Your task to perform on an android device: empty trash in the gmail app Image 0: 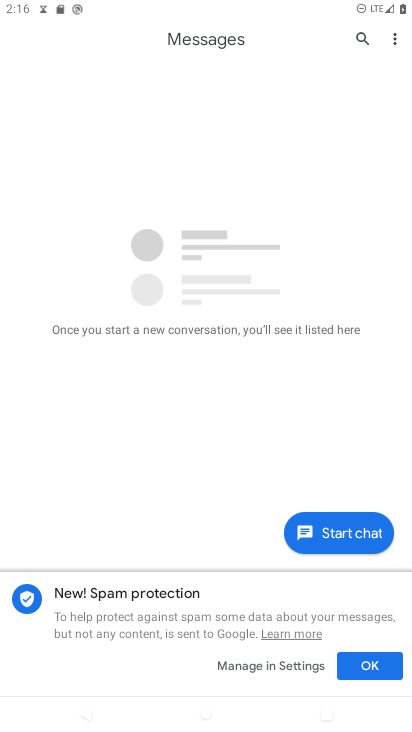
Step 0: press home button
Your task to perform on an android device: empty trash in the gmail app Image 1: 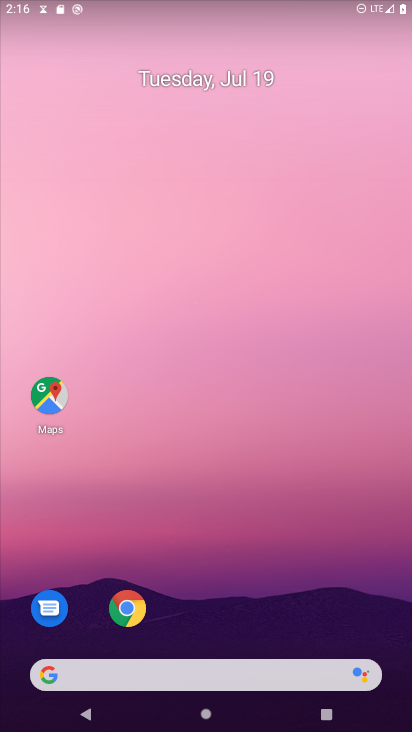
Step 1: drag from (179, 669) to (262, 67)
Your task to perform on an android device: empty trash in the gmail app Image 2: 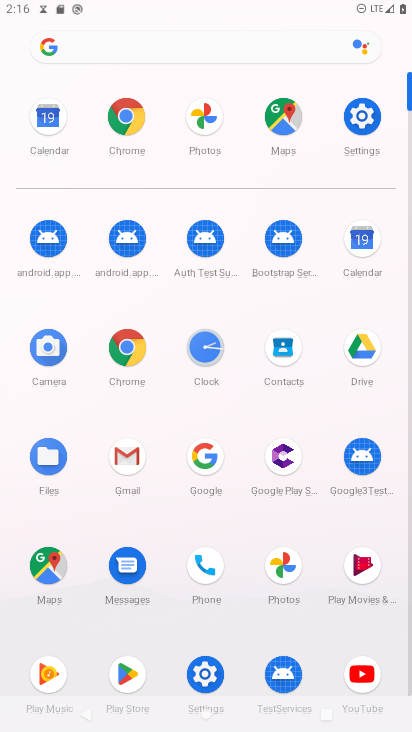
Step 2: click (117, 466)
Your task to perform on an android device: empty trash in the gmail app Image 3: 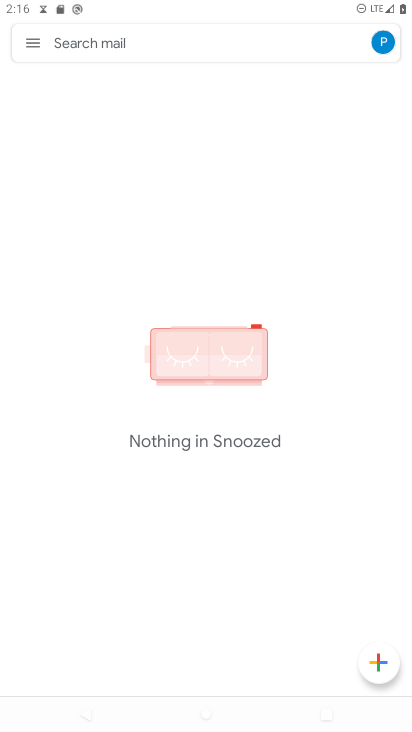
Step 3: click (32, 46)
Your task to perform on an android device: empty trash in the gmail app Image 4: 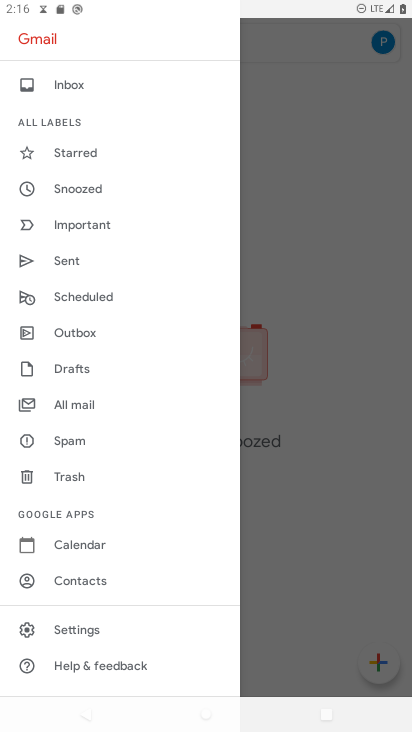
Step 4: click (84, 476)
Your task to perform on an android device: empty trash in the gmail app Image 5: 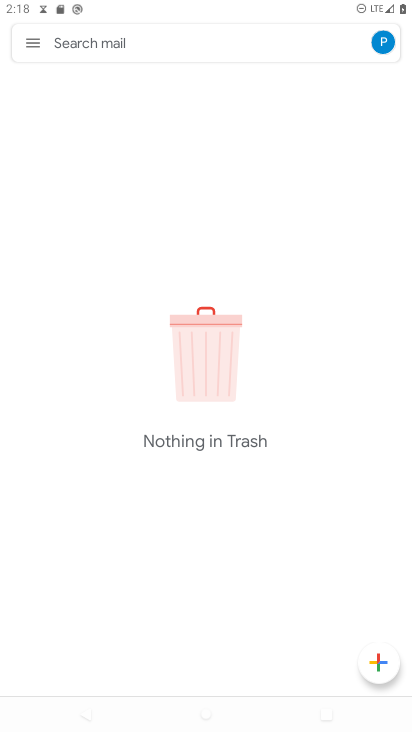
Step 5: task complete